Your task to perform on an android device: toggle translation in the chrome app Image 0: 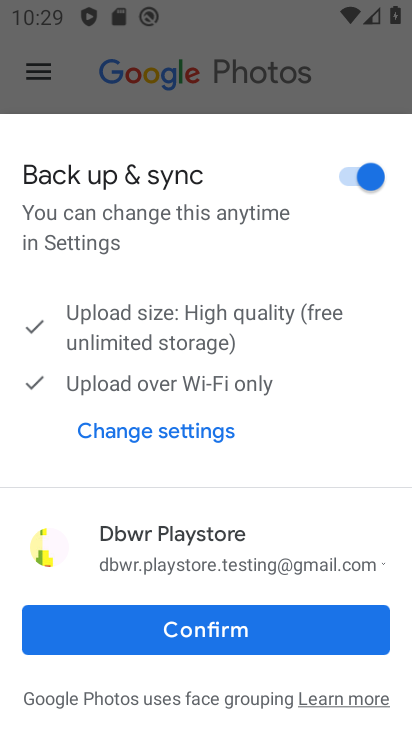
Step 0: press home button
Your task to perform on an android device: toggle translation in the chrome app Image 1: 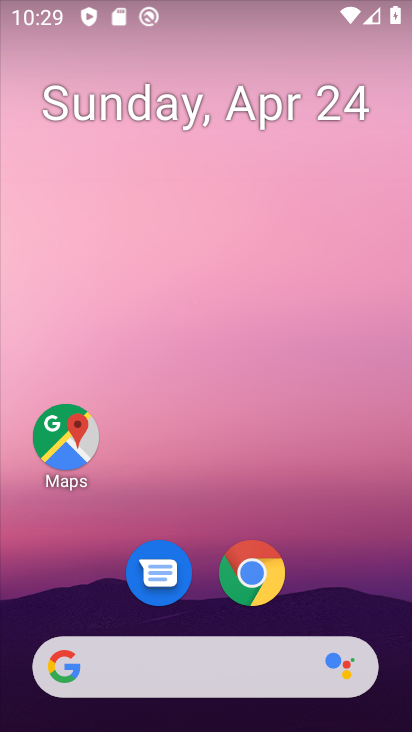
Step 1: click (251, 559)
Your task to perform on an android device: toggle translation in the chrome app Image 2: 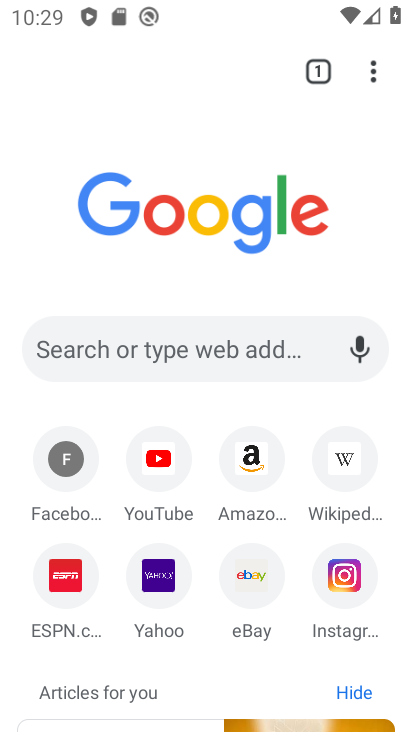
Step 2: click (368, 63)
Your task to perform on an android device: toggle translation in the chrome app Image 3: 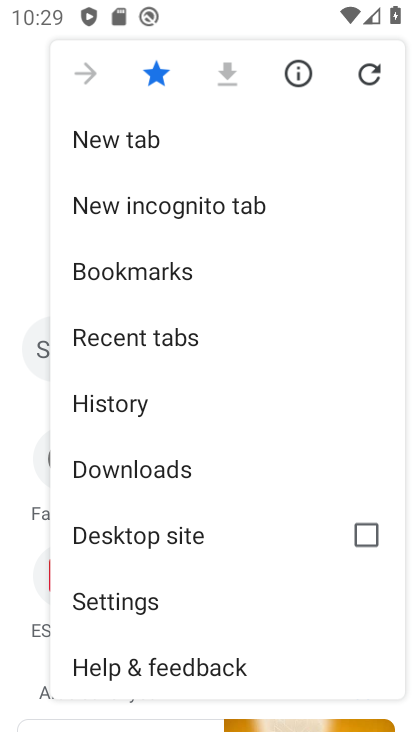
Step 3: click (129, 591)
Your task to perform on an android device: toggle translation in the chrome app Image 4: 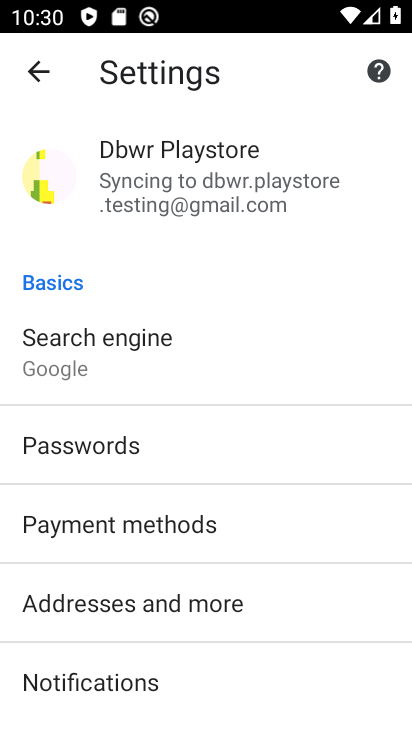
Step 4: drag from (128, 631) to (120, 320)
Your task to perform on an android device: toggle translation in the chrome app Image 5: 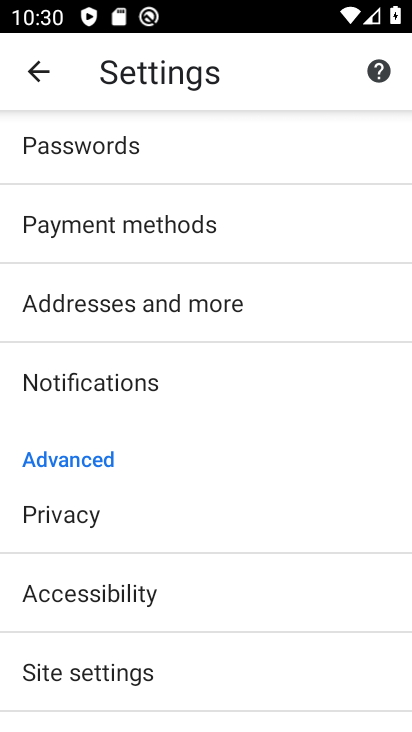
Step 5: drag from (117, 660) to (125, 358)
Your task to perform on an android device: toggle translation in the chrome app Image 6: 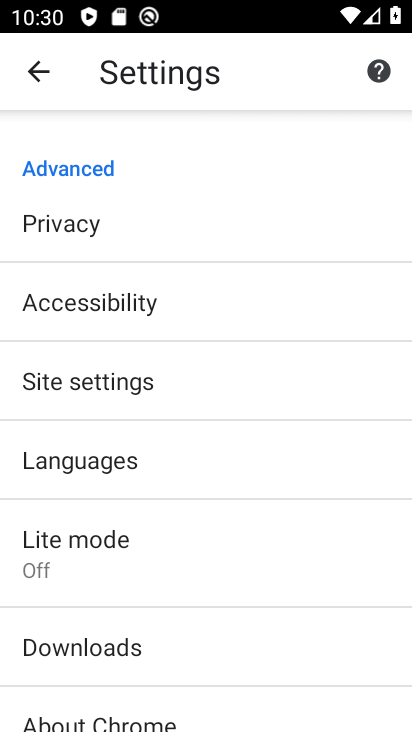
Step 6: click (140, 454)
Your task to perform on an android device: toggle translation in the chrome app Image 7: 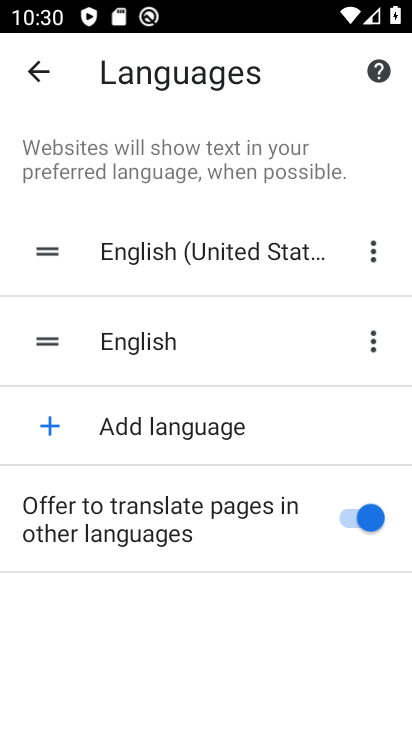
Step 7: click (348, 530)
Your task to perform on an android device: toggle translation in the chrome app Image 8: 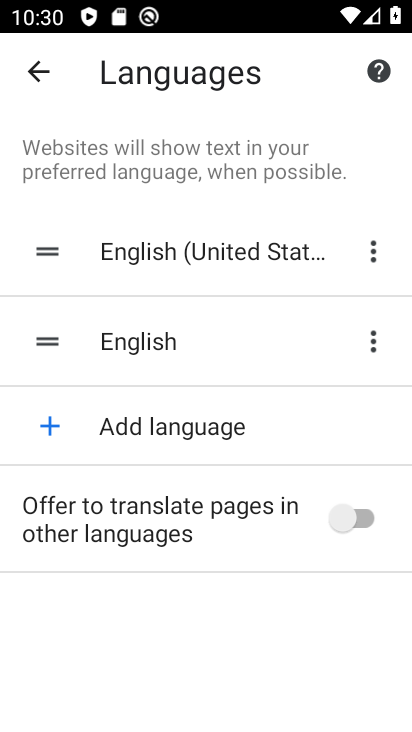
Step 8: task complete